Your task to perform on an android device: toggle location history Image 0: 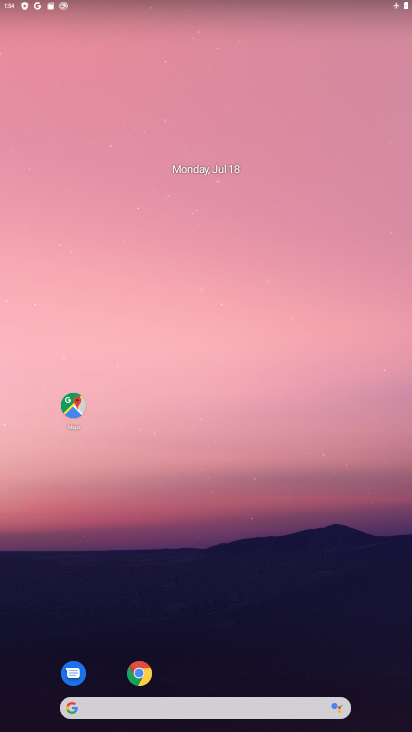
Step 0: drag from (182, 708) to (271, 125)
Your task to perform on an android device: toggle location history Image 1: 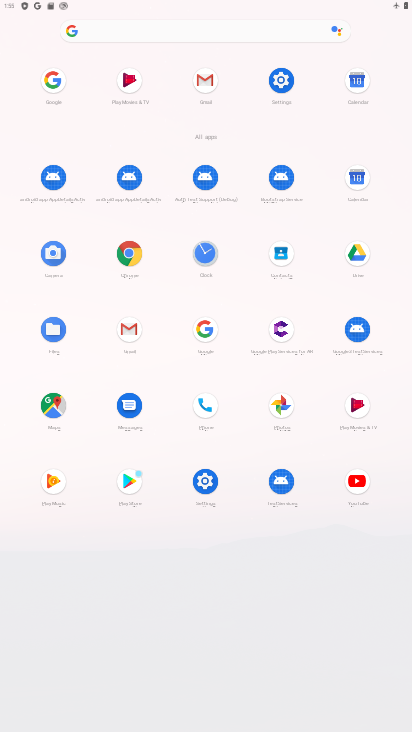
Step 1: click (283, 80)
Your task to perform on an android device: toggle location history Image 2: 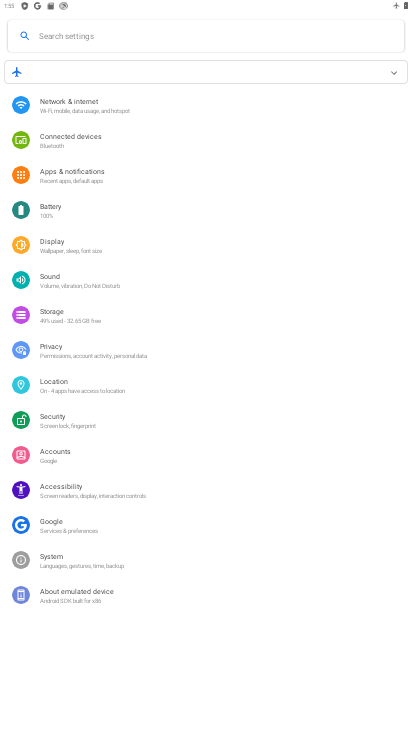
Step 2: click (72, 384)
Your task to perform on an android device: toggle location history Image 3: 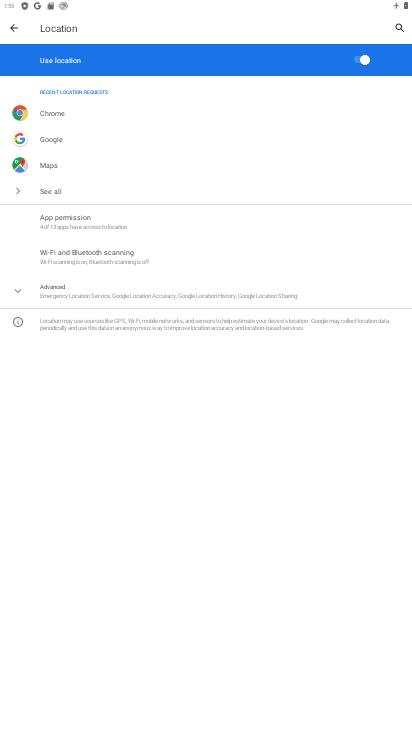
Step 3: click (86, 294)
Your task to perform on an android device: toggle location history Image 4: 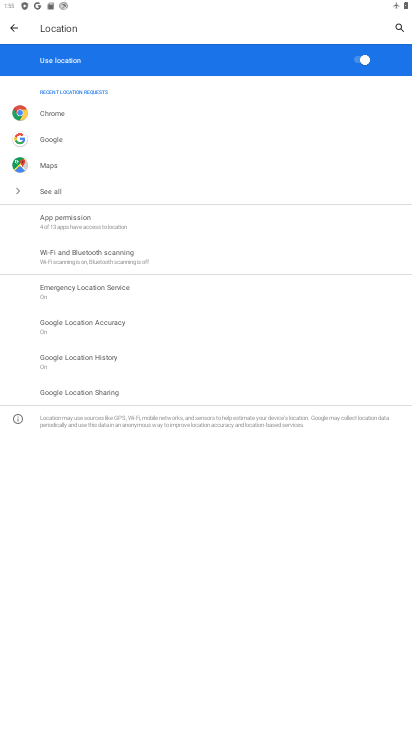
Step 4: click (107, 355)
Your task to perform on an android device: toggle location history Image 5: 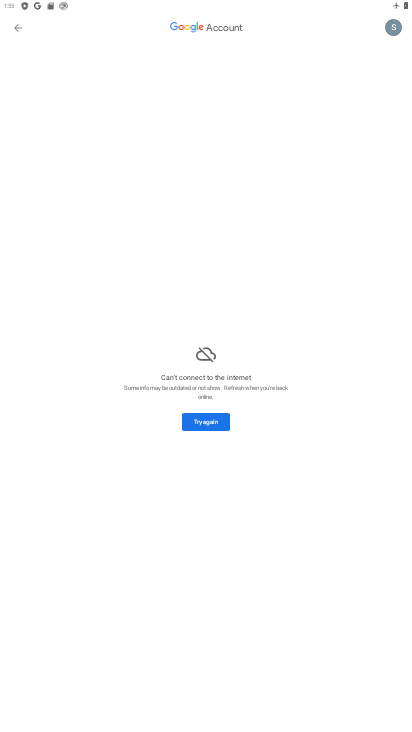
Step 5: click (206, 426)
Your task to perform on an android device: toggle location history Image 6: 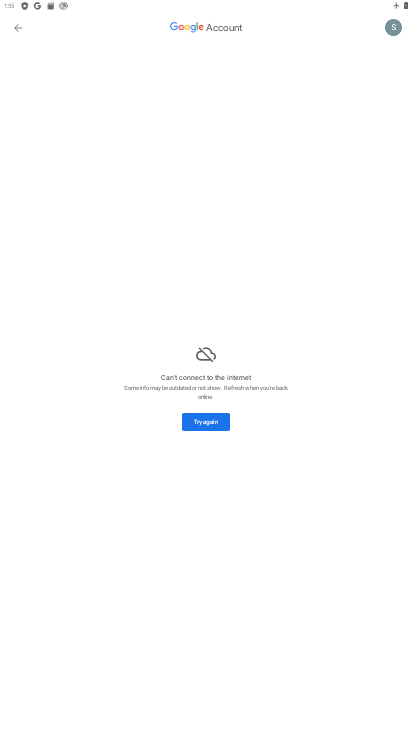
Step 6: click (199, 414)
Your task to perform on an android device: toggle location history Image 7: 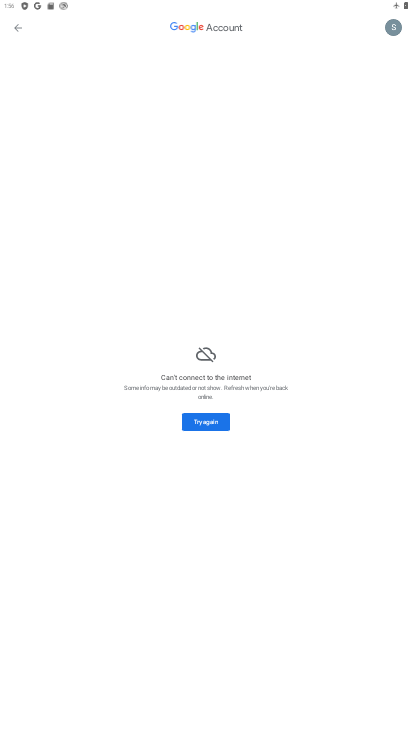
Step 7: task complete